Your task to perform on an android device: check storage Image 0: 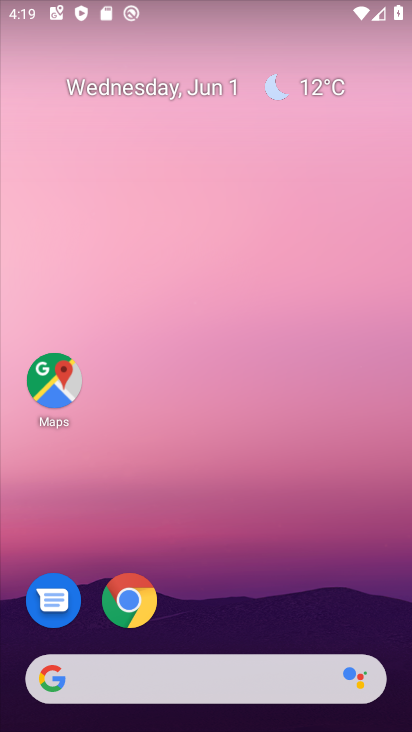
Step 0: drag from (382, 627) to (338, 203)
Your task to perform on an android device: check storage Image 1: 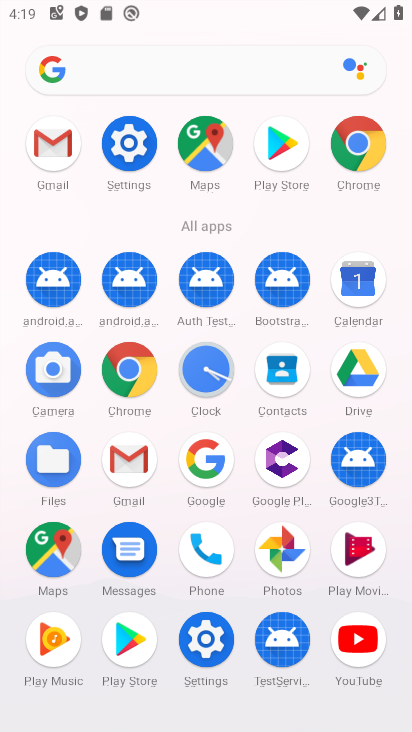
Step 1: click (207, 639)
Your task to perform on an android device: check storage Image 2: 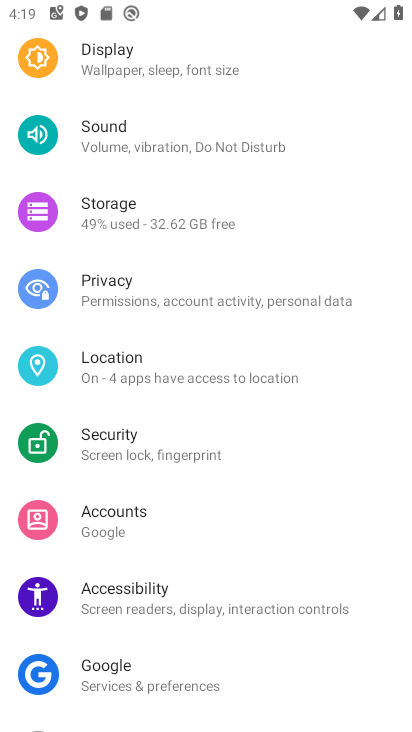
Step 2: click (123, 203)
Your task to perform on an android device: check storage Image 3: 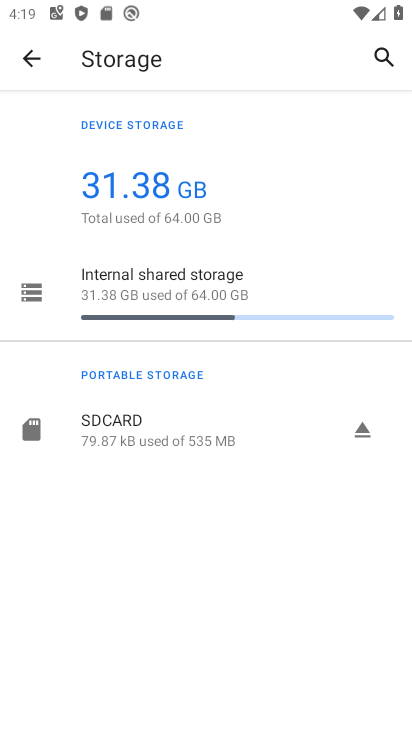
Step 3: task complete